Your task to perform on an android device: Go to Android settings Image 0: 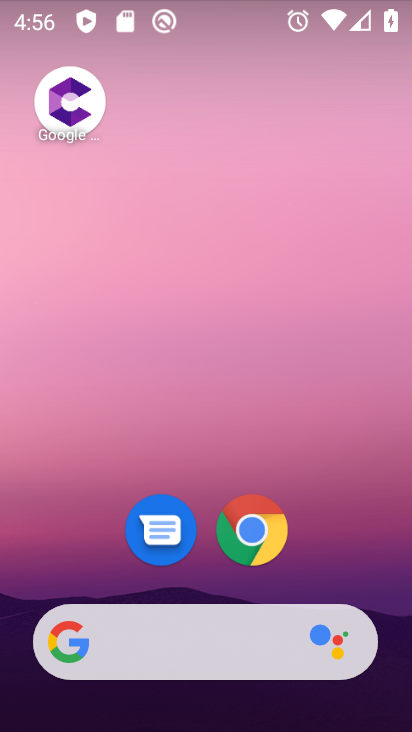
Step 0: drag from (351, 514) to (369, 105)
Your task to perform on an android device: Go to Android settings Image 1: 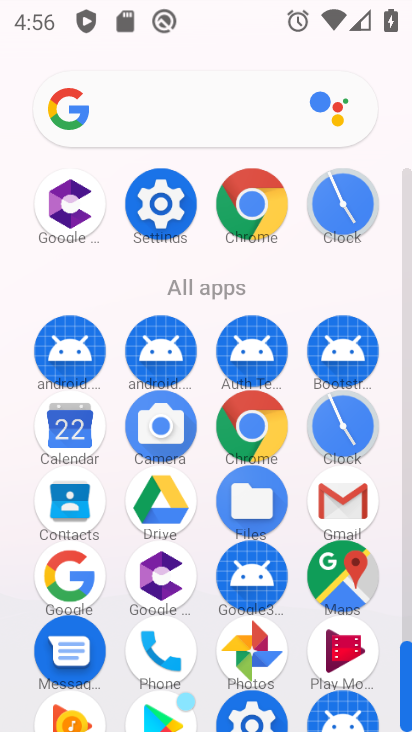
Step 1: click (170, 211)
Your task to perform on an android device: Go to Android settings Image 2: 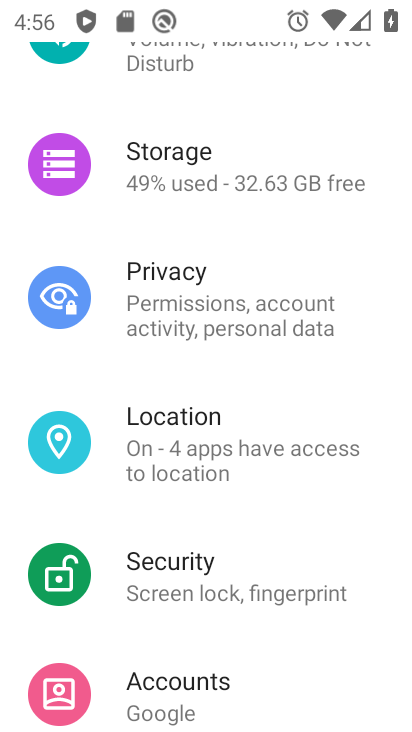
Step 2: drag from (322, 596) to (299, 122)
Your task to perform on an android device: Go to Android settings Image 3: 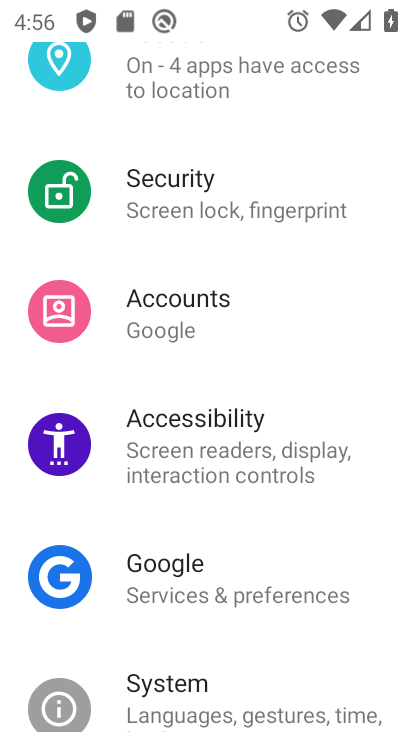
Step 3: drag from (321, 558) to (287, 183)
Your task to perform on an android device: Go to Android settings Image 4: 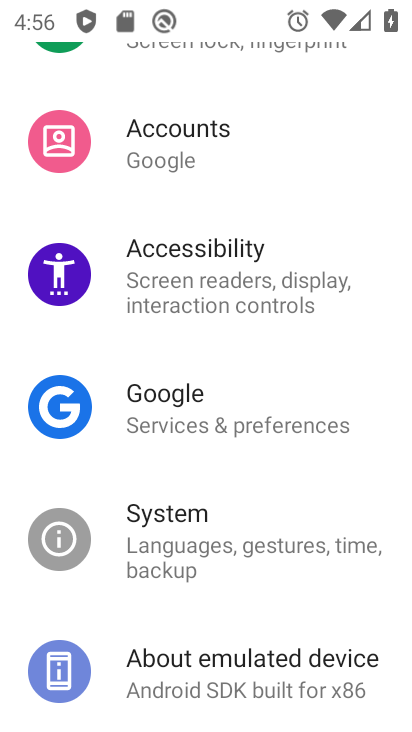
Step 4: click (282, 678)
Your task to perform on an android device: Go to Android settings Image 5: 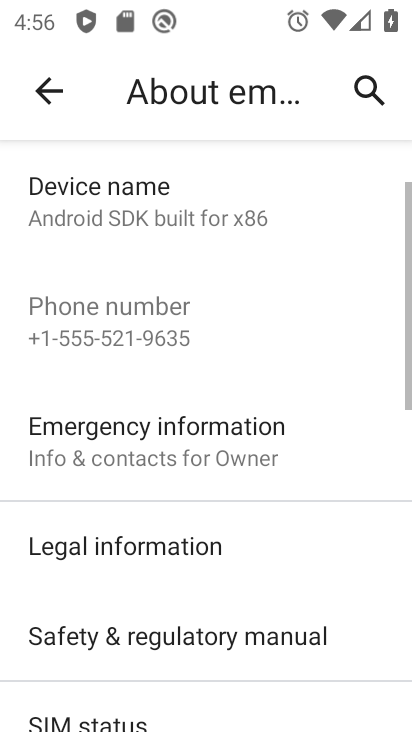
Step 5: drag from (361, 580) to (357, 164)
Your task to perform on an android device: Go to Android settings Image 6: 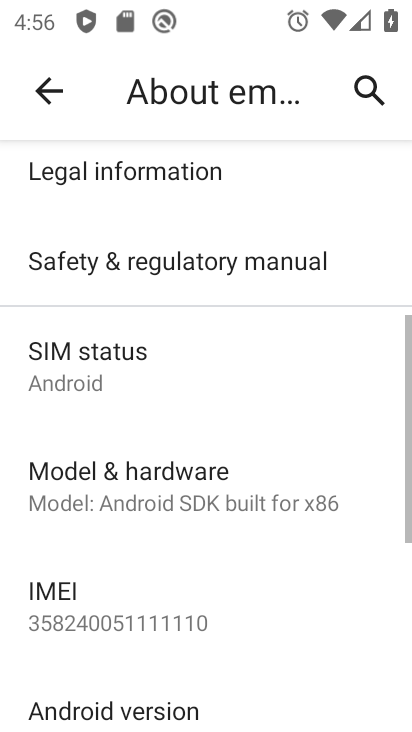
Step 6: drag from (317, 610) to (302, 239)
Your task to perform on an android device: Go to Android settings Image 7: 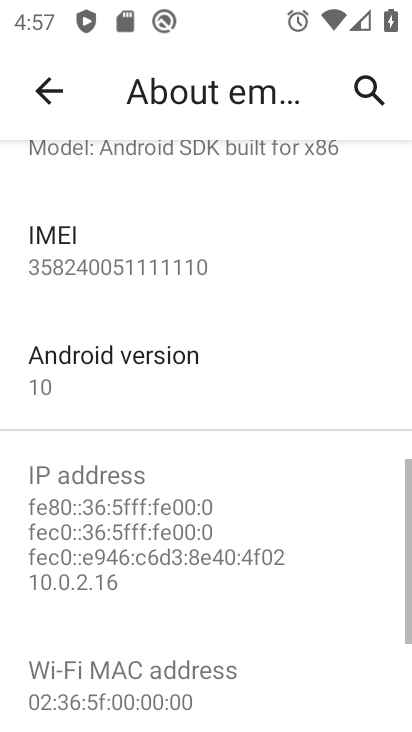
Step 7: click (151, 360)
Your task to perform on an android device: Go to Android settings Image 8: 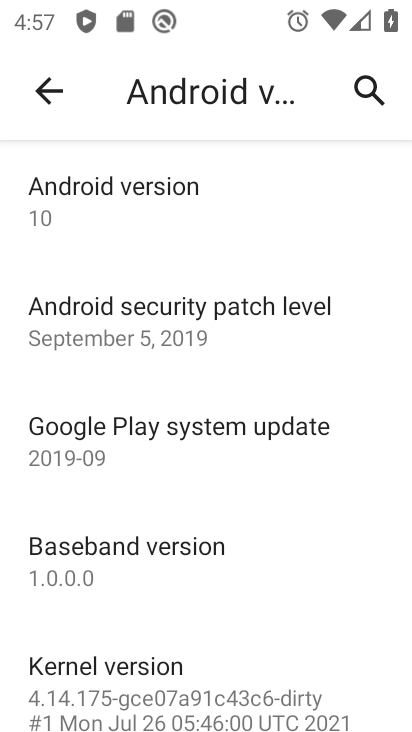
Step 8: task complete